Your task to perform on an android device: toggle notification dots Image 0: 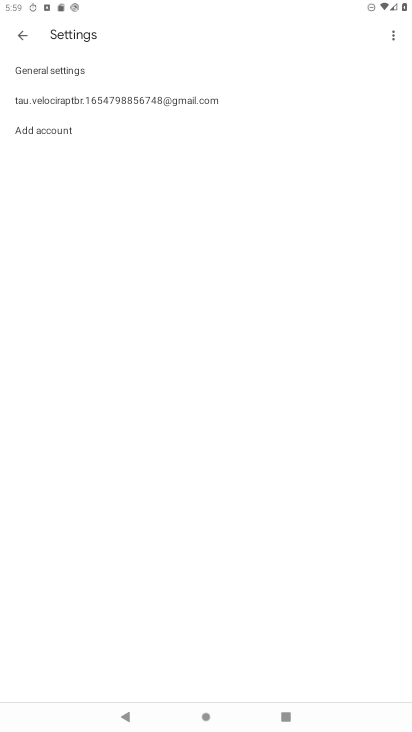
Step 0: press home button
Your task to perform on an android device: toggle notification dots Image 1: 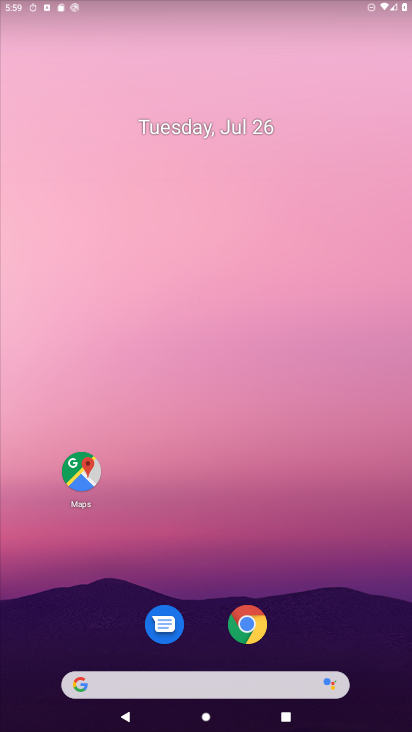
Step 1: drag from (185, 649) to (288, 33)
Your task to perform on an android device: toggle notification dots Image 2: 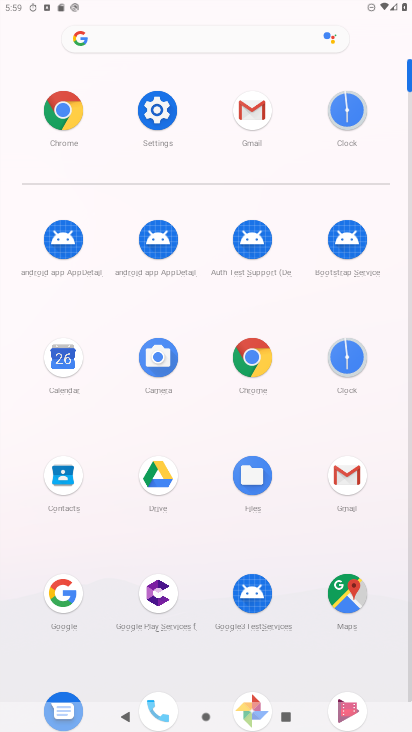
Step 2: click (138, 112)
Your task to perform on an android device: toggle notification dots Image 3: 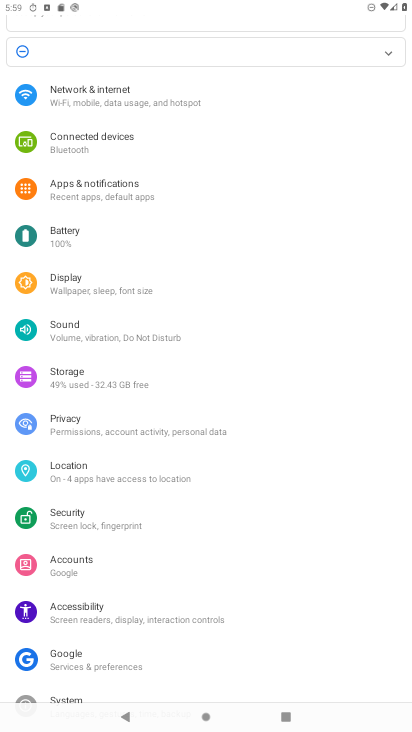
Step 3: click (131, 185)
Your task to perform on an android device: toggle notification dots Image 4: 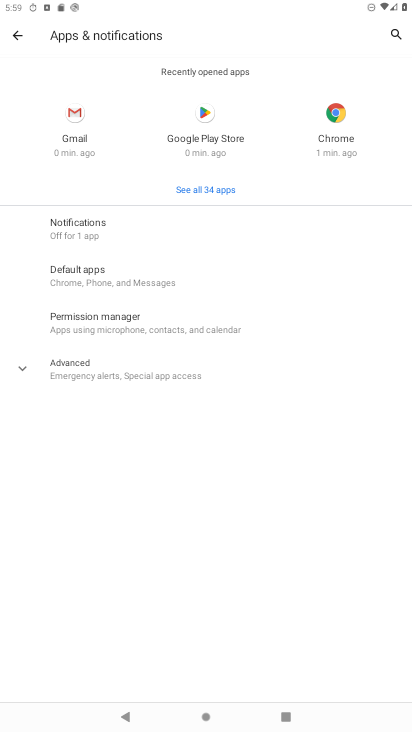
Step 4: click (93, 233)
Your task to perform on an android device: toggle notification dots Image 5: 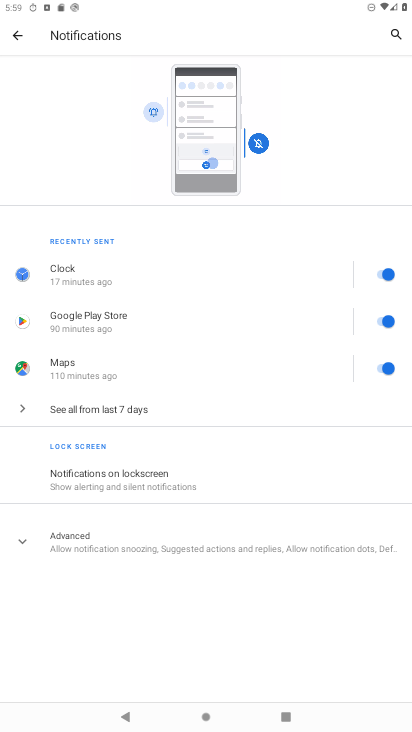
Step 5: click (138, 538)
Your task to perform on an android device: toggle notification dots Image 6: 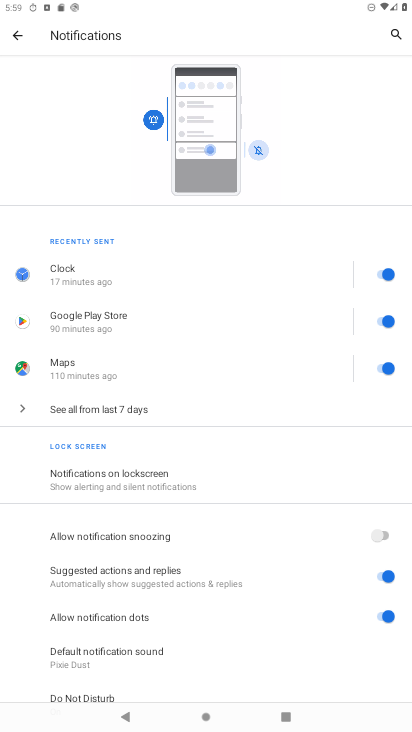
Step 6: click (382, 617)
Your task to perform on an android device: toggle notification dots Image 7: 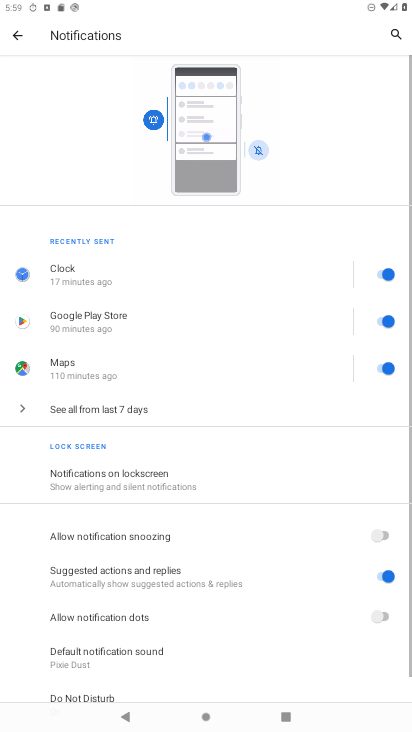
Step 7: task complete